Your task to perform on an android device: toggle notification dots Image 0: 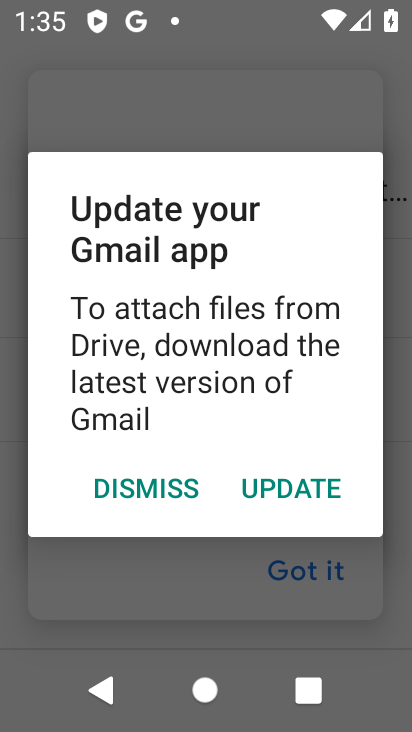
Step 0: press home button
Your task to perform on an android device: toggle notification dots Image 1: 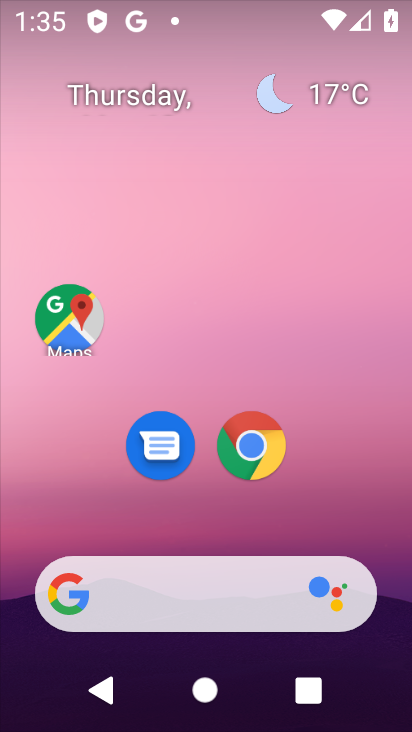
Step 1: drag from (320, 496) to (327, 15)
Your task to perform on an android device: toggle notification dots Image 2: 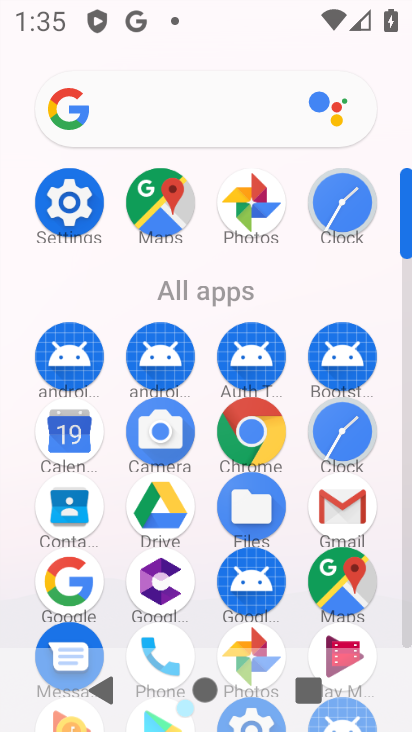
Step 2: click (66, 198)
Your task to perform on an android device: toggle notification dots Image 3: 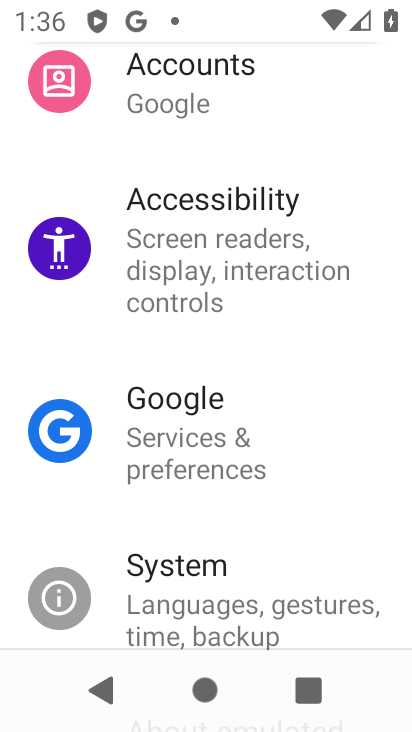
Step 3: drag from (240, 153) to (232, 493)
Your task to perform on an android device: toggle notification dots Image 4: 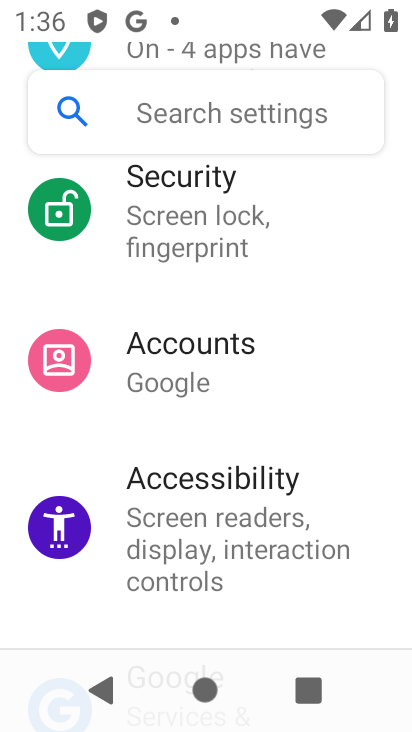
Step 4: drag from (196, 304) to (173, 660)
Your task to perform on an android device: toggle notification dots Image 5: 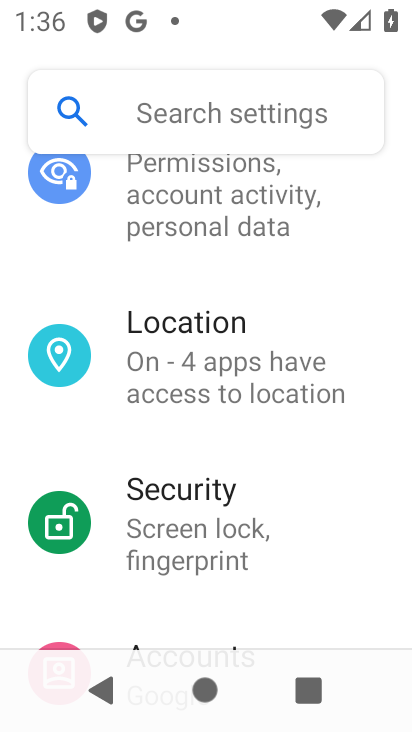
Step 5: drag from (169, 265) to (186, 723)
Your task to perform on an android device: toggle notification dots Image 6: 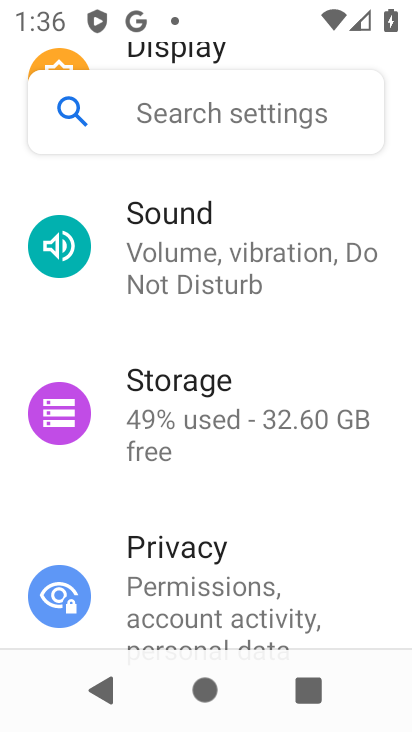
Step 6: drag from (166, 325) to (178, 710)
Your task to perform on an android device: toggle notification dots Image 7: 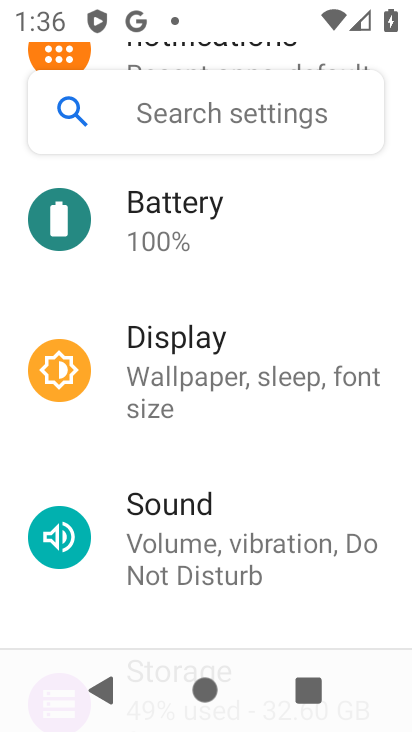
Step 7: drag from (159, 279) to (208, 535)
Your task to perform on an android device: toggle notification dots Image 8: 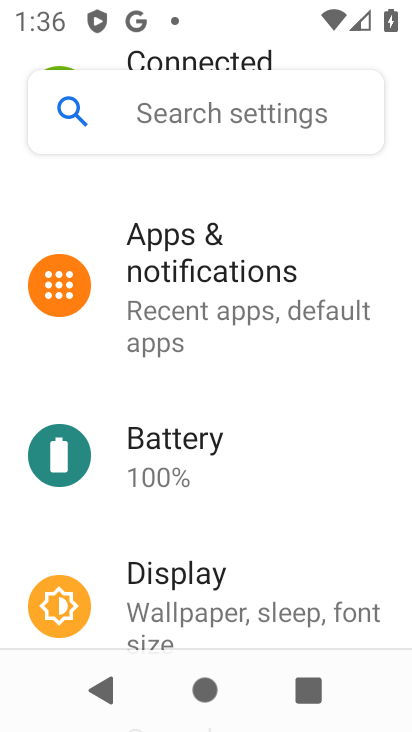
Step 8: click (157, 256)
Your task to perform on an android device: toggle notification dots Image 9: 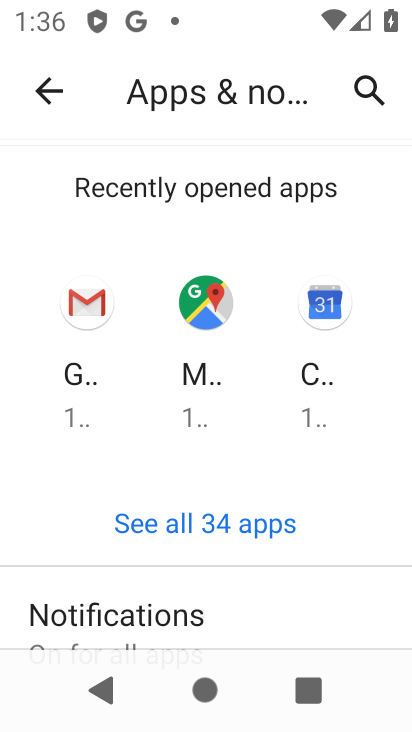
Step 9: drag from (213, 558) to (174, 268)
Your task to perform on an android device: toggle notification dots Image 10: 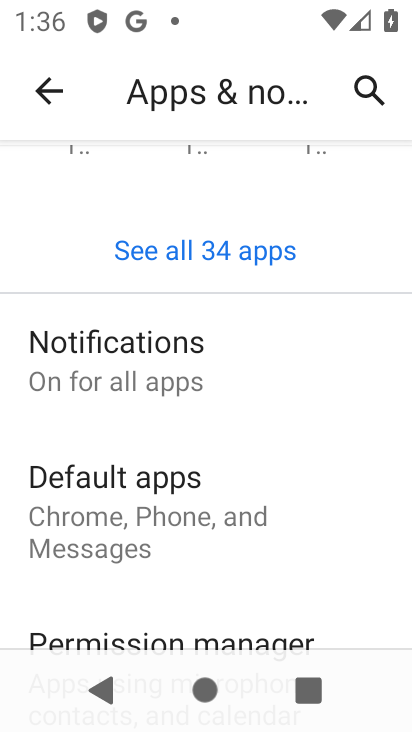
Step 10: click (98, 338)
Your task to perform on an android device: toggle notification dots Image 11: 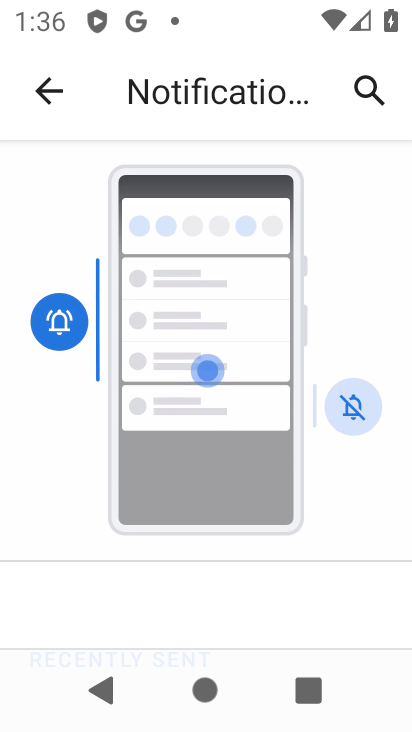
Step 11: drag from (281, 560) to (248, 248)
Your task to perform on an android device: toggle notification dots Image 12: 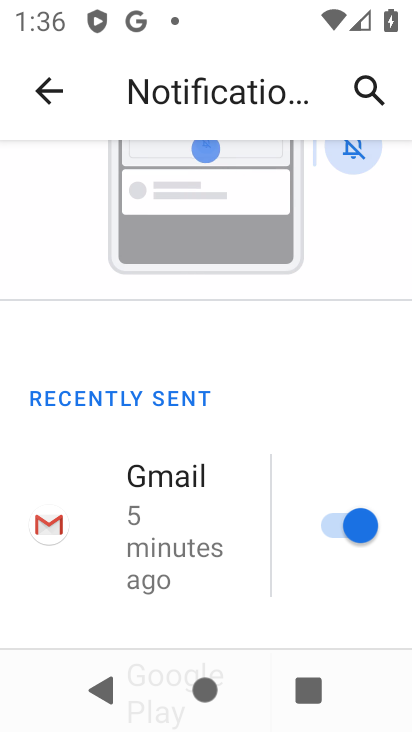
Step 12: drag from (302, 475) to (309, 145)
Your task to perform on an android device: toggle notification dots Image 13: 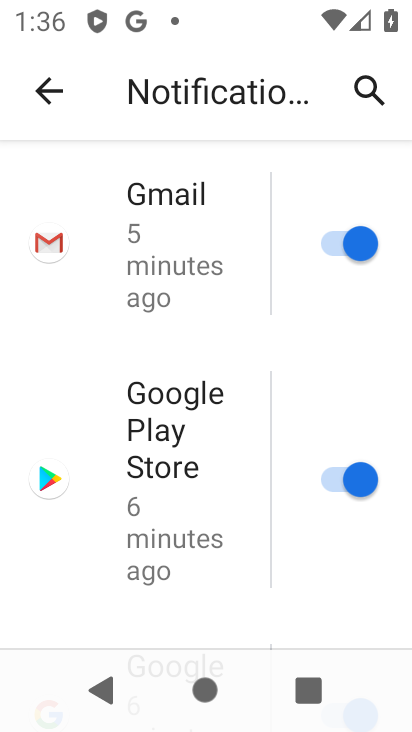
Step 13: drag from (239, 537) to (196, 255)
Your task to perform on an android device: toggle notification dots Image 14: 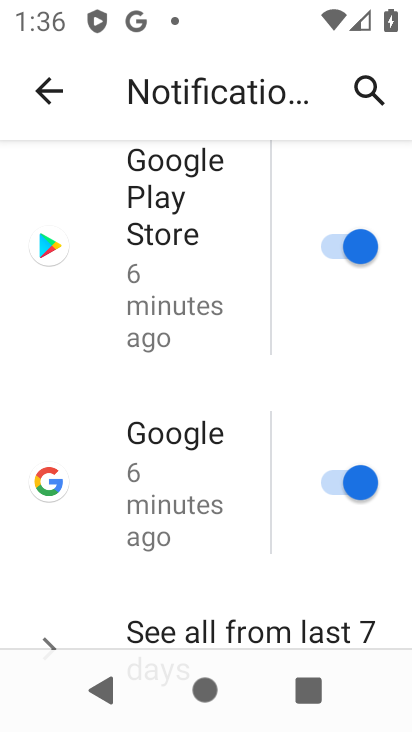
Step 14: drag from (260, 533) to (259, 107)
Your task to perform on an android device: toggle notification dots Image 15: 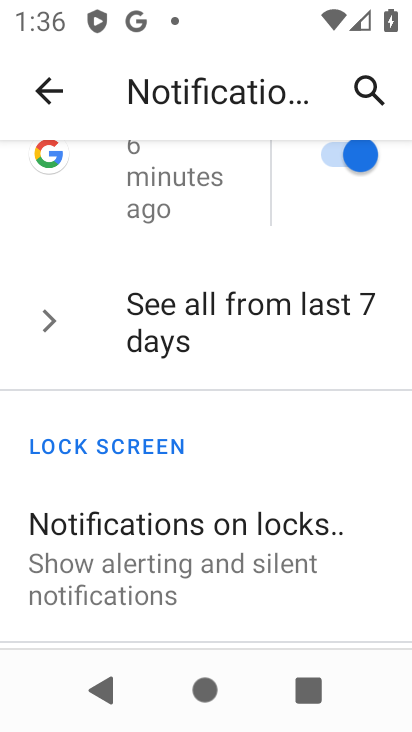
Step 15: drag from (254, 478) to (216, 180)
Your task to perform on an android device: toggle notification dots Image 16: 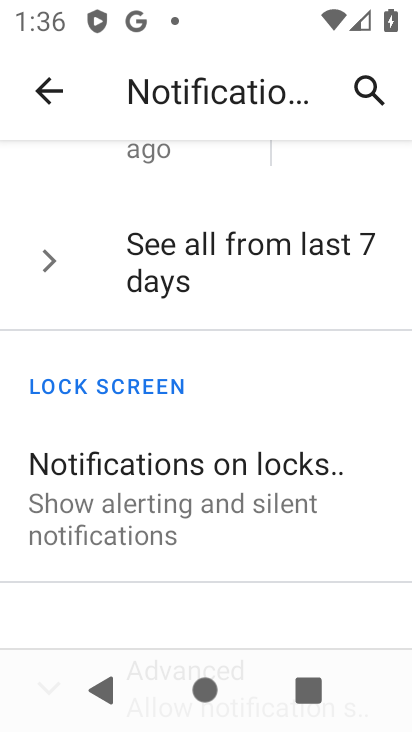
Step 16: drag from (198, 583) to (155, 187)
Your task to perform on an android device: toggle notification dots Image 17: 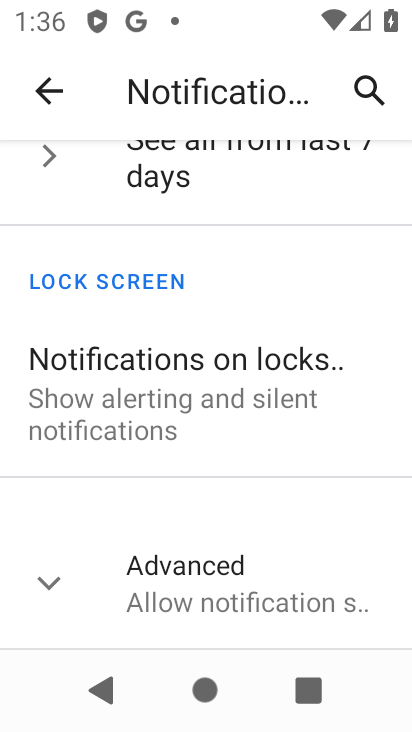
Step 17: click (44, 583)
Your task to perform on an android device: toggle notification dots Image 18: 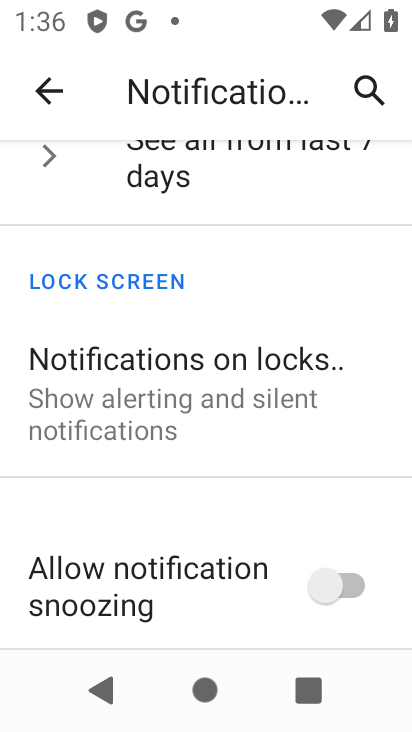
Step 18: drag from (240, 473) to (208, 176)
Your task to perform on an android device: toggle notification dots Image 19: 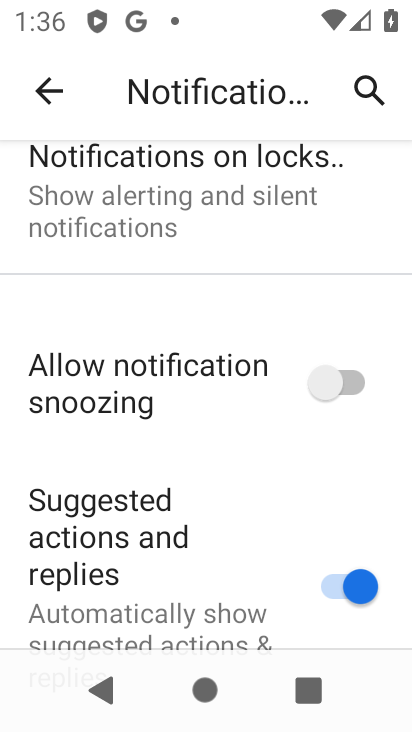
Step 19: drag from (248, 515) to (232, 232)
Your task to perform on an android device: toggle notification dots Image 20: 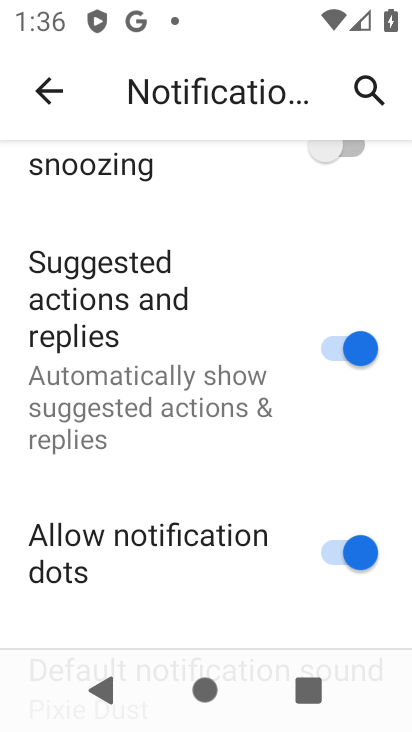
Step 20: click (360, 550)
Your task to perform on an android device: toggle notification dots Image 21: 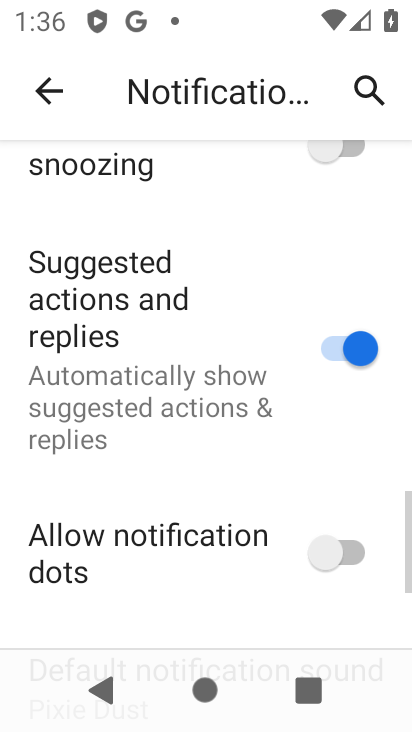
Step 21: task complete